Your task to perform on an android device: open app "eBay: The shopping marketplace" Image 0: 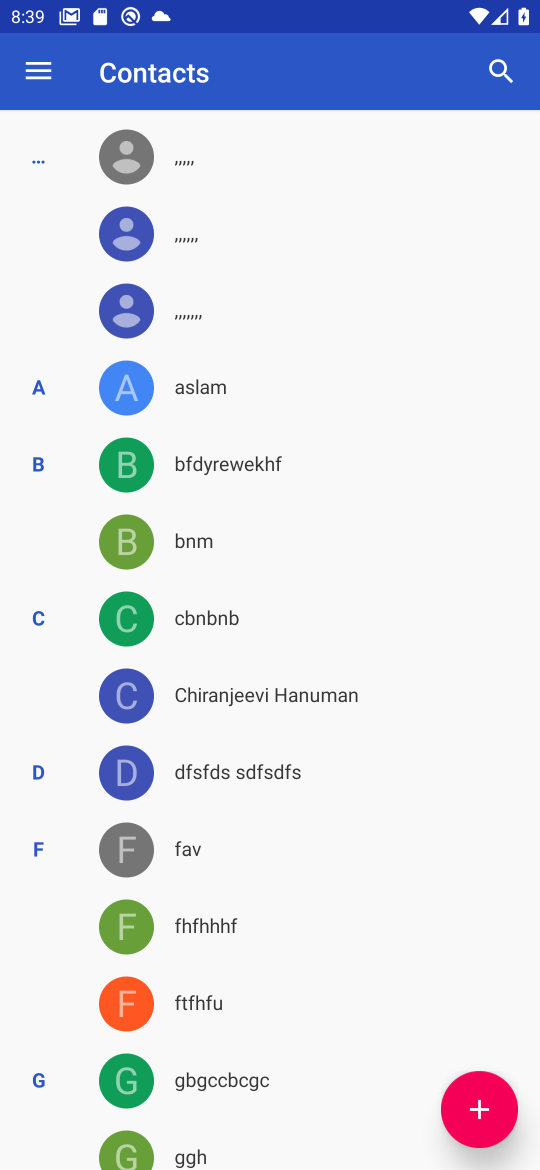
Step 0: press home button
Your task to perform on an android device: open app "eBay: The shopping marketplace" Image 1: 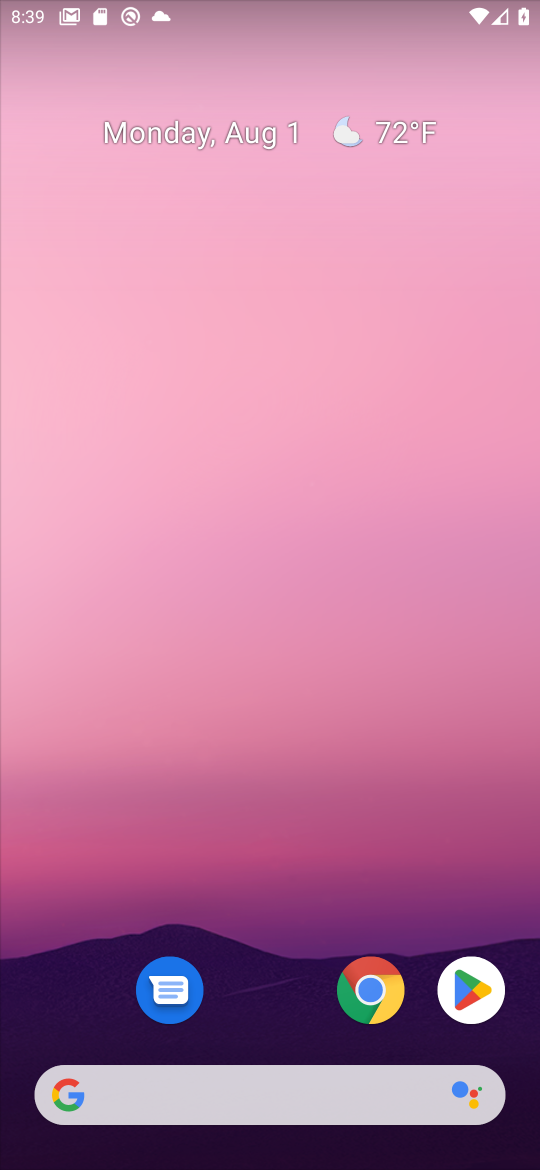
Step 1: click (449, 997)
Your task to perform on an android device: open app "eBay: The shopping marketplace" Image 2: 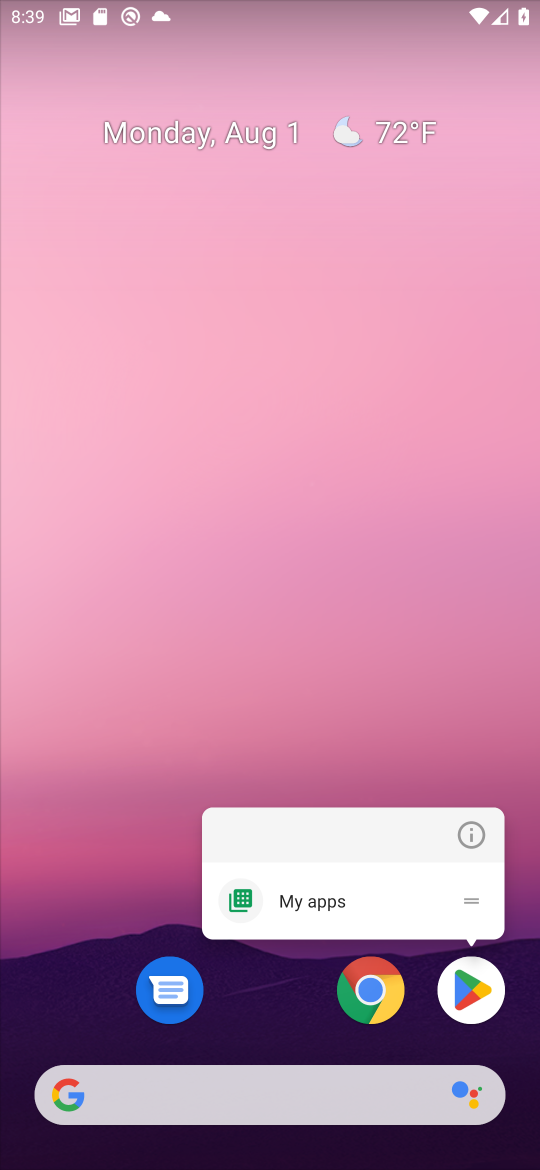
Step 2: click (466, 1002)
Your task to perform on an android device: open app "eBay: The shopping marketplace" Image 3: 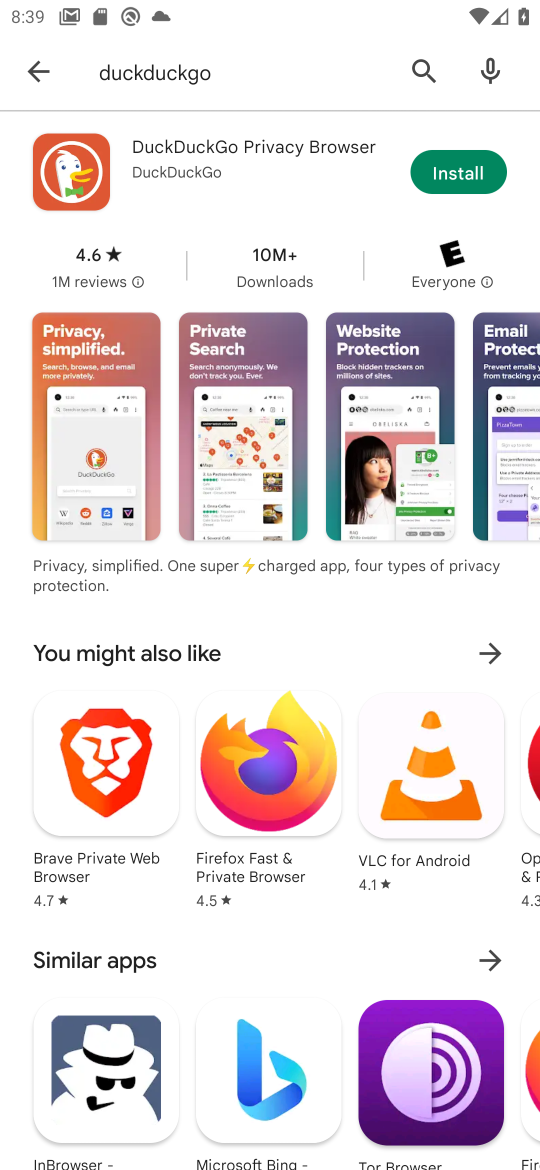
Step 3: click (412, 74)
Your task to perform on an android device: open app "eBay: The shopping marketplace" Image 4: 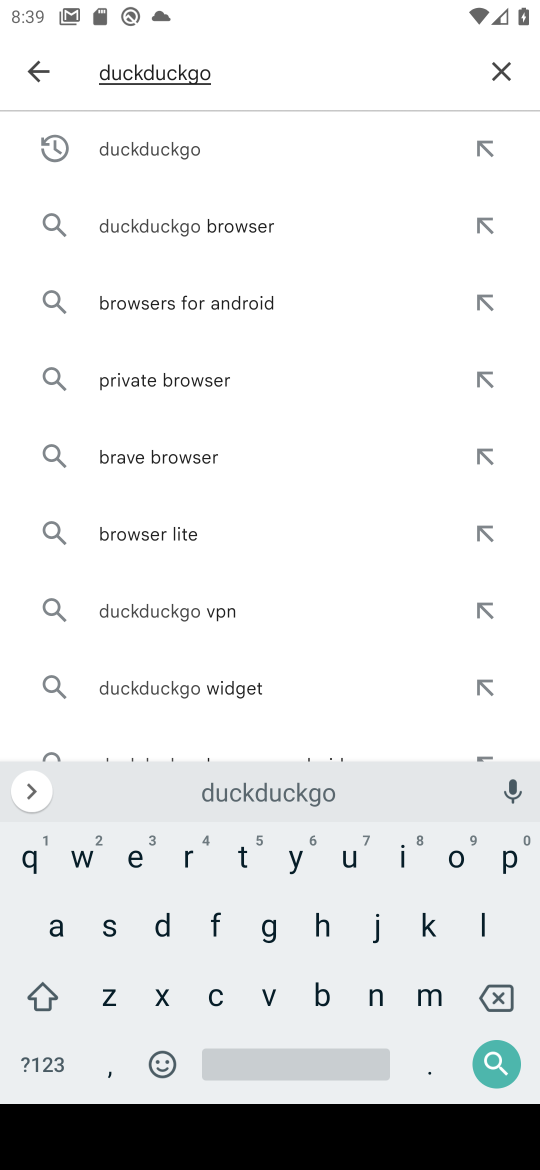
Step 4: click (503, 61)
Your task to perform on an android device: open app "eBay: The shopping marketplace" Image 5: 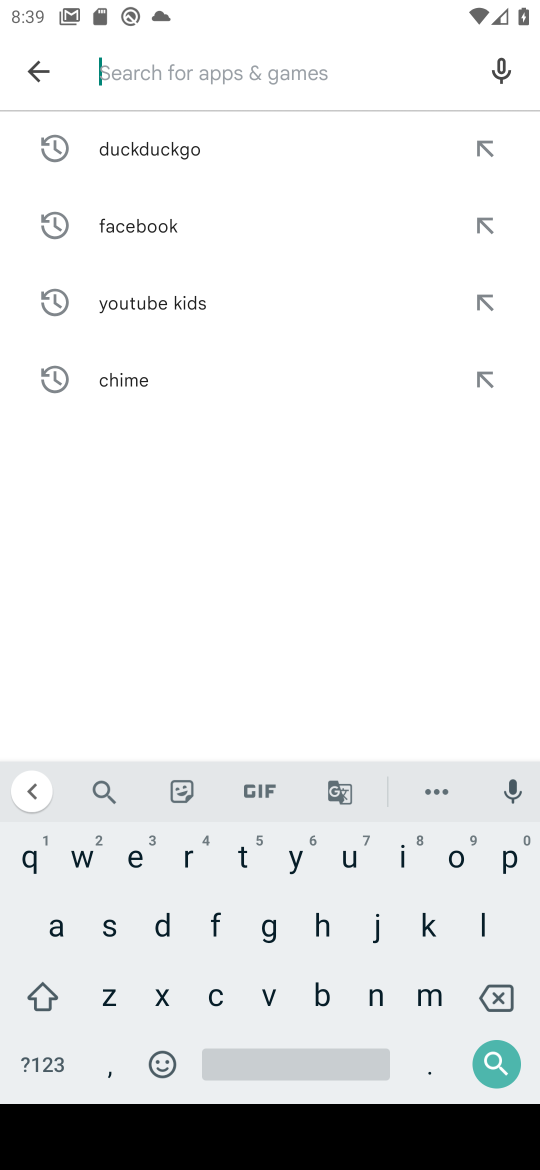
Step 5: click (128, 849)
Your task to perform on an android device: open app "eBay: The shopping marketplace" Image 6: 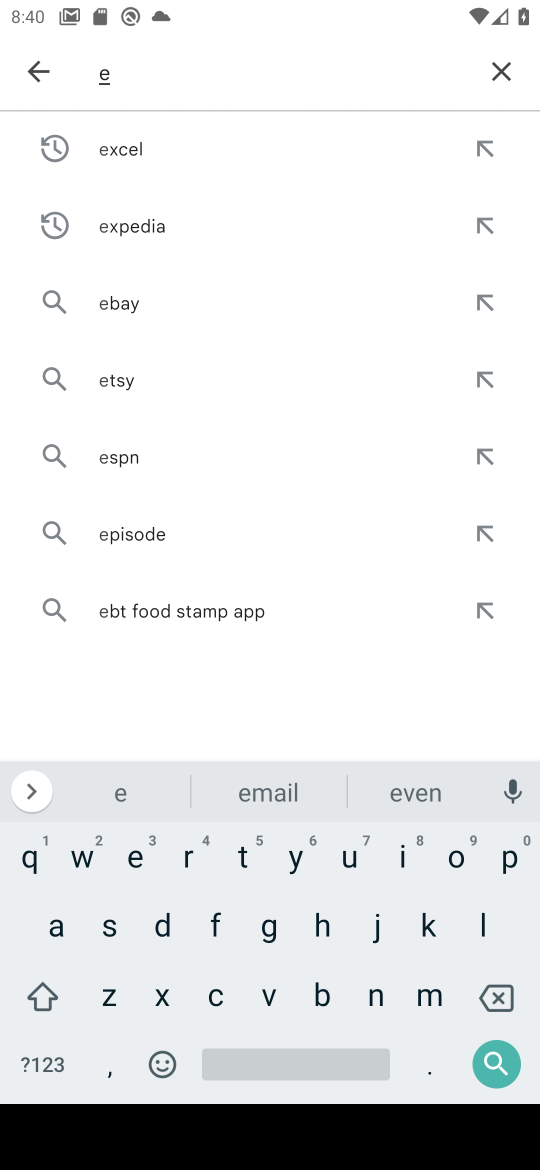
Step 6: click (157, 306)
Your task to perform on an android device: open app "eBay: The shopping marketplace" Image 7: 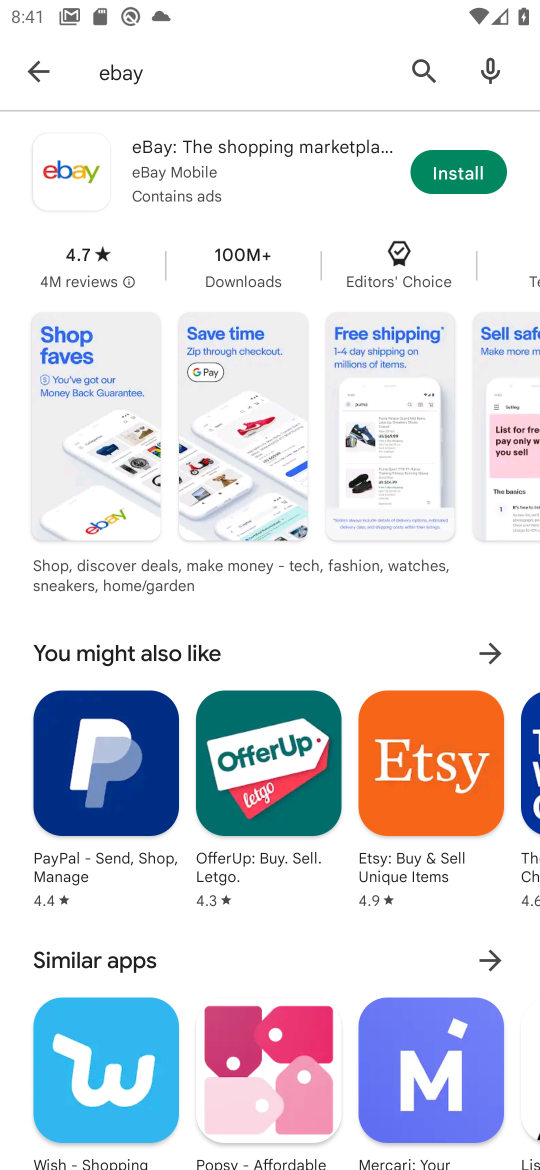
Step 7: task complete